Your task to perform on an android device: see creations saved in the google photos Image 0: 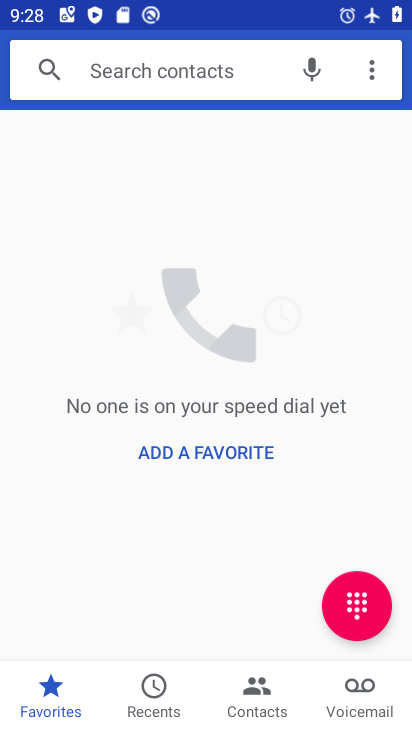
Step 0: press home button
Your task to perform on an android device: see creations saved in the google photos Image 1: 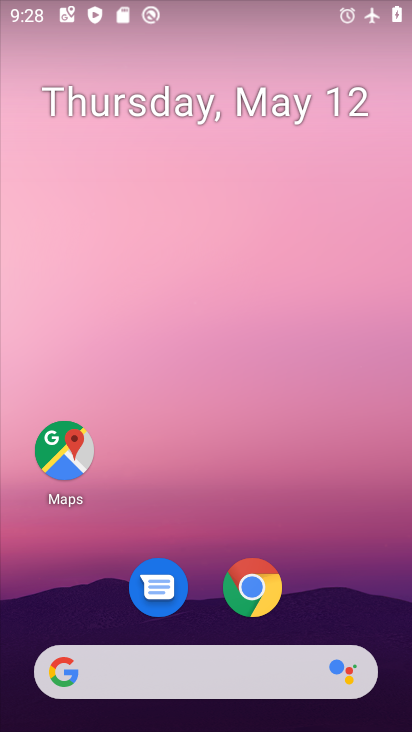
Step 1: drag from (311, 617) to (350, 235)
Your task to perform on an android device: see creations saved in the google photos Image 2: 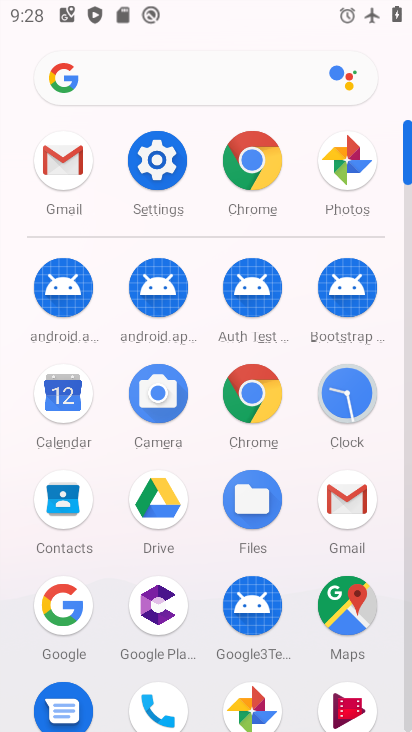
Step 2: drag from (235, 552) to (279, 207)
Your task to perform on an android device: see creations saved in the google photos Image 3: 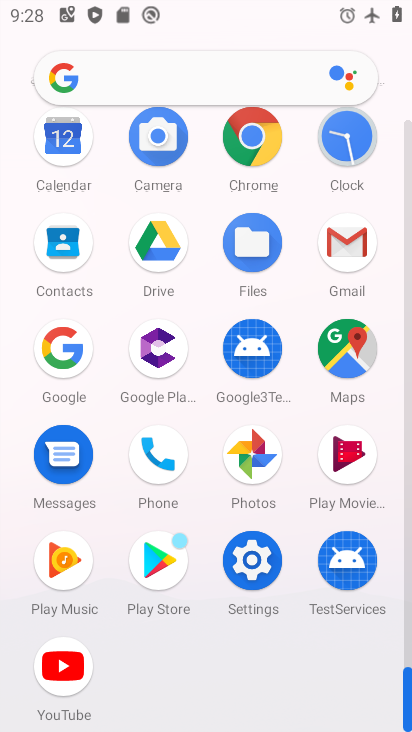
Step 3: click (246, 439)
Your task to perform on an android device: see creations saved in the google photos Image 4: 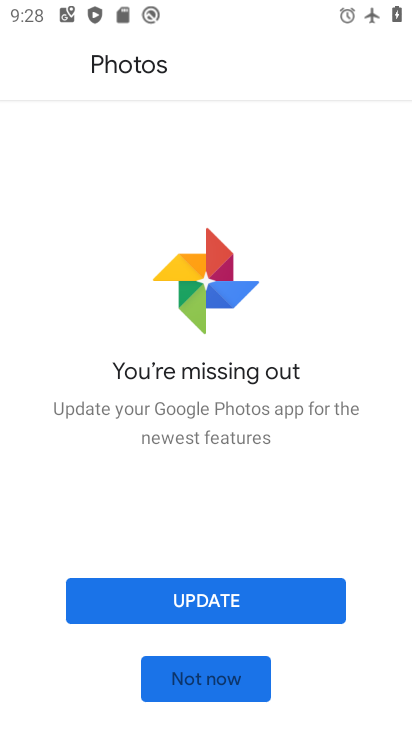
Step 4: click (244, 681)
Your task to perform on an android device: see creations saved in the google photos Image 5: 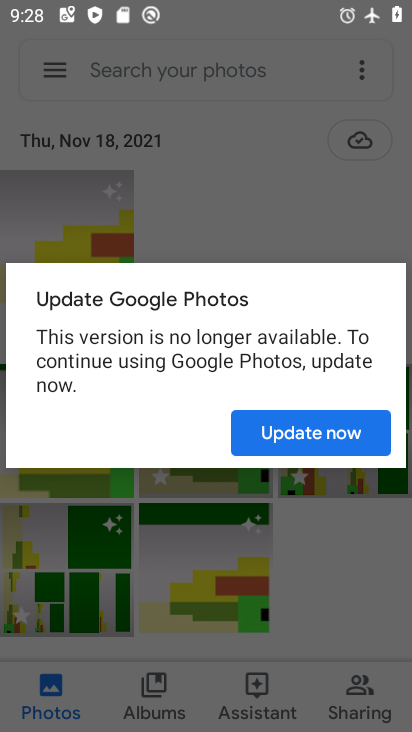
Step 5: click (290, 420)
Your task to perform on an android device: see creations saved in the google photos Image 6: 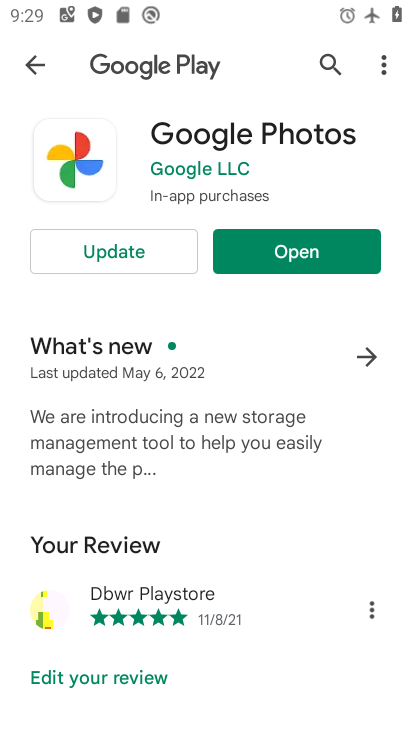
Step 6: click (39, 64)
Your task to perform on an android device: see creations saved in the google photos Image 7: 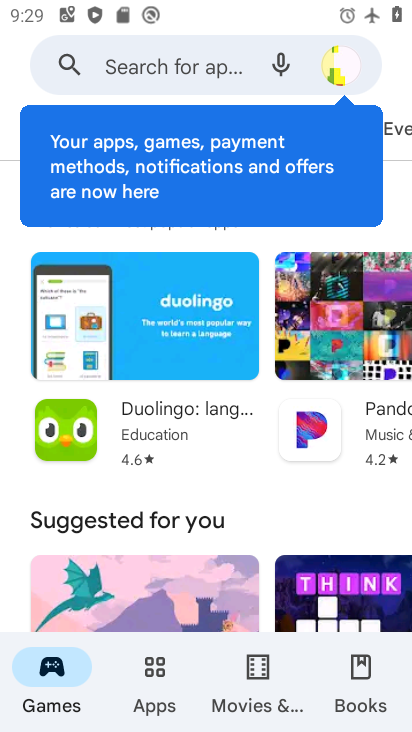
Step 7: press home button
Your task to perform on an android device: see creations saved in the google photos Image 8: 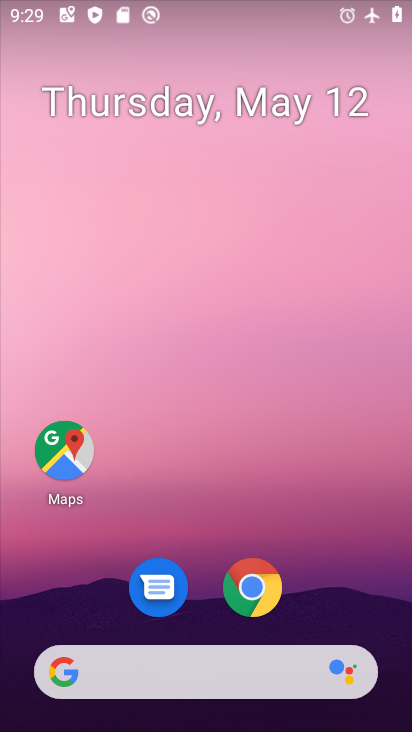
Step 8: drag from (336, 557) to (347, 143)
Your task to perform on an android device: see creations saved in the google photos Image 9: 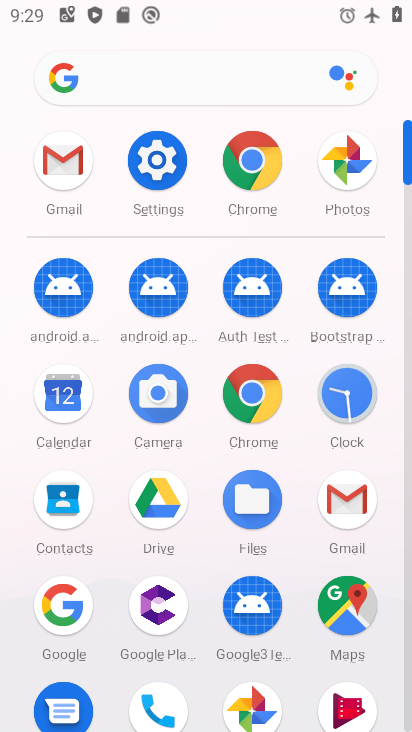
Step 9: drag from (232, 603) to (287, 220)
Your task to perform on an android device: see creations saved in the google photos Image 10: 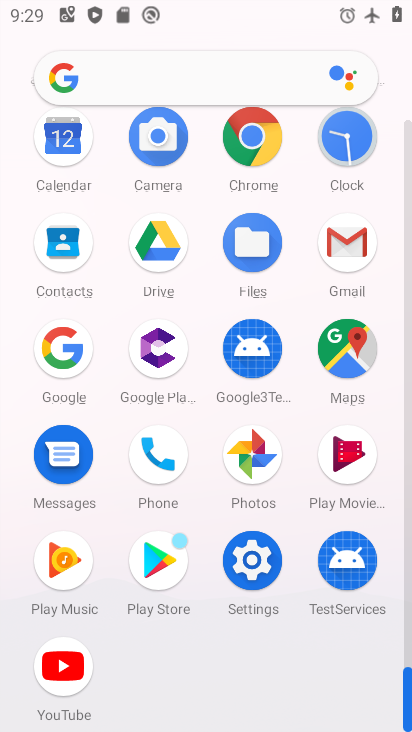
Step 10: click (239, 457)
Your task to perform on an android device: see creations saved in the google photos Image 11: 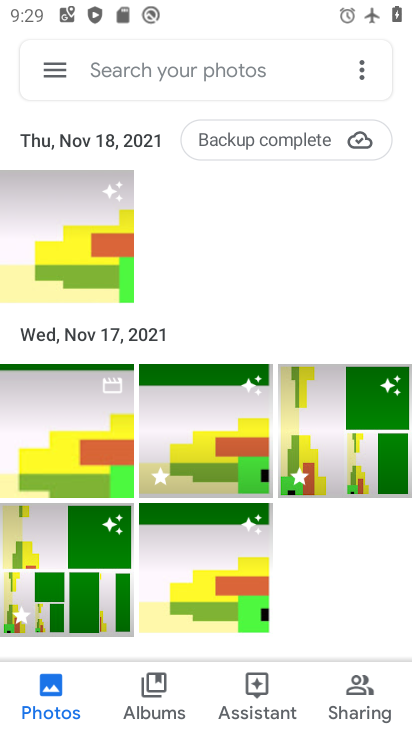
Step 11: task complete